Your task to perform on an android device: toggle airplane mode Image 0: 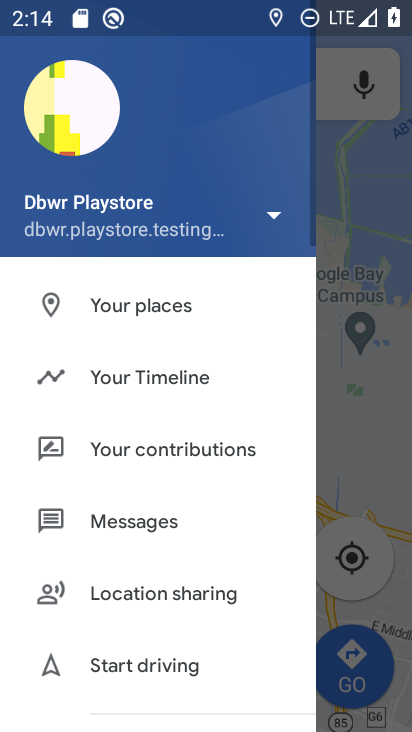
Step 0: press home button
Your task to perform on an android device: toggle airplane mode Image 1: 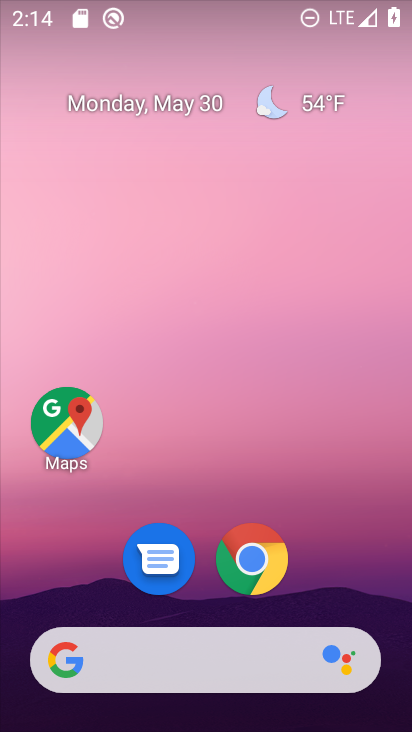
Step 1: drag from (314, 600) to (292, 36)
Your task to perform on an android device: toggle airplane mode Image 2: 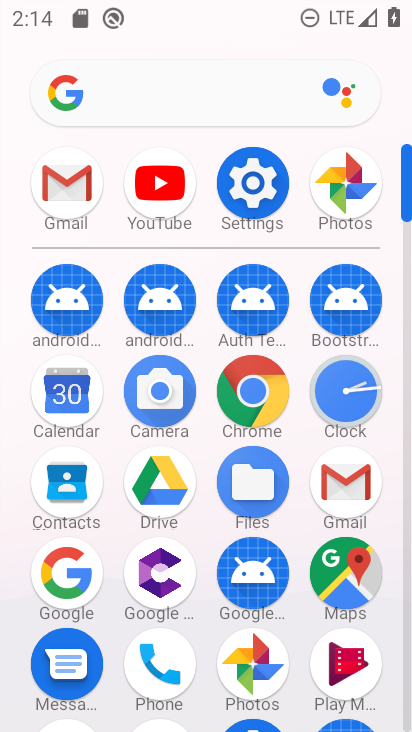
Step 2: click (256, 178)
Your task to perform on an android device: toggle airplane mode Image 3: 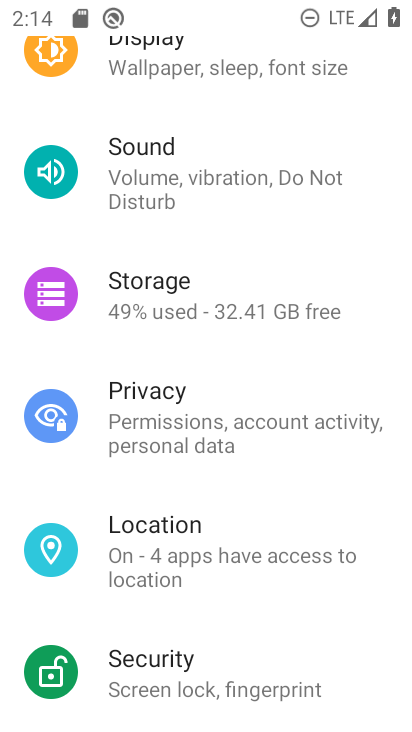
Step 3: drag from (227, 214) to (293, 565)
Your task to perform on an android device: toggle airplane mode Image 4: 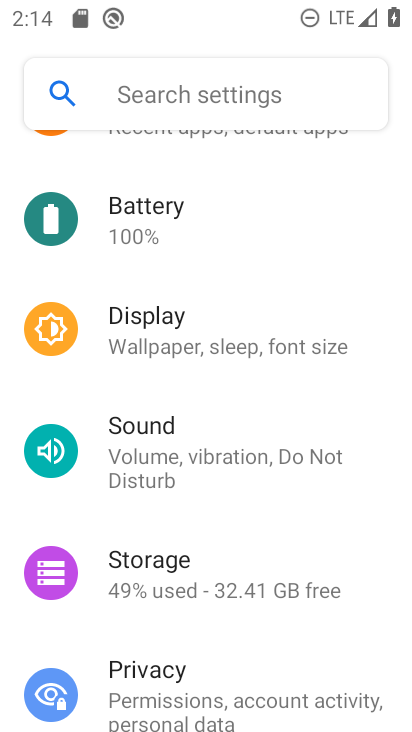
Step 4: drag from (279, 269) to (321, 565)
Your task to perform on an android device: toggle airplane mode Image 5: 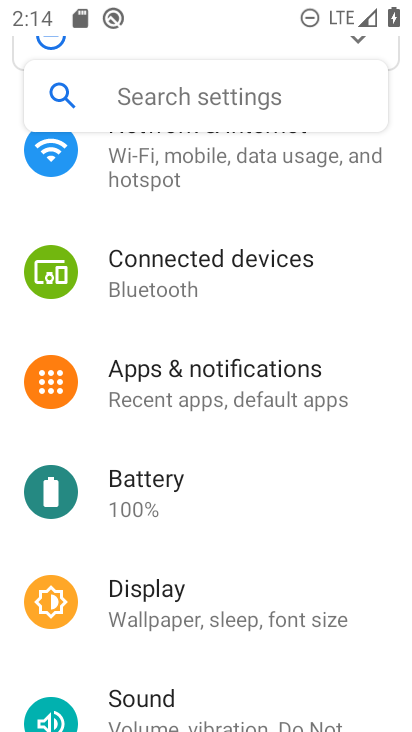
Step 5: click (272, 169)
Your task to perform on an android device: toggle airplane mode Image 6: 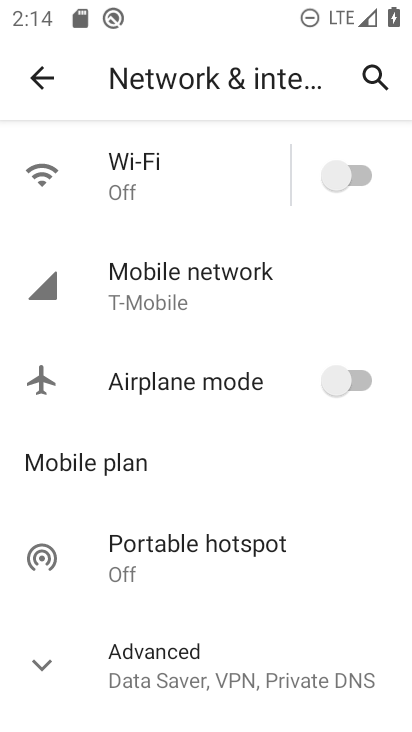
Step 6: click (372, 393)
Your task to perform on an android device: toggle airplane mode Image 7: 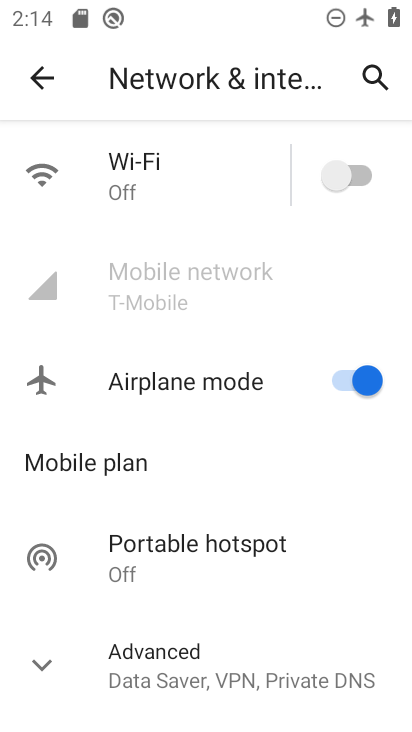
Step 7: task complete